Your task to perform on an android device: Is it going to rain tomorrow? Image 0: 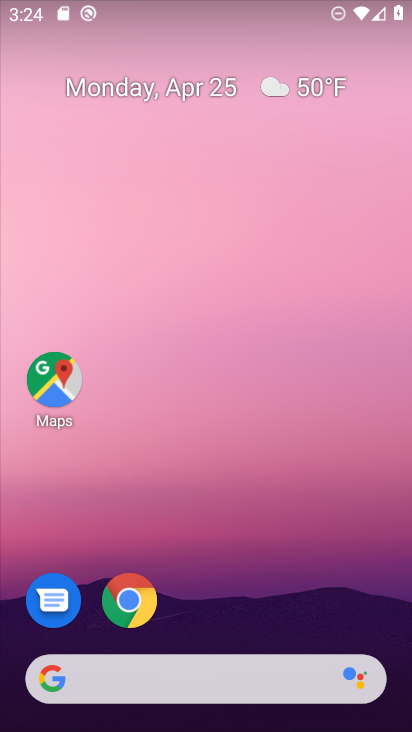
Step 0: click (137, 692)
Your task to perform on an android device: Is it going to rain tomorrow? Image 1: 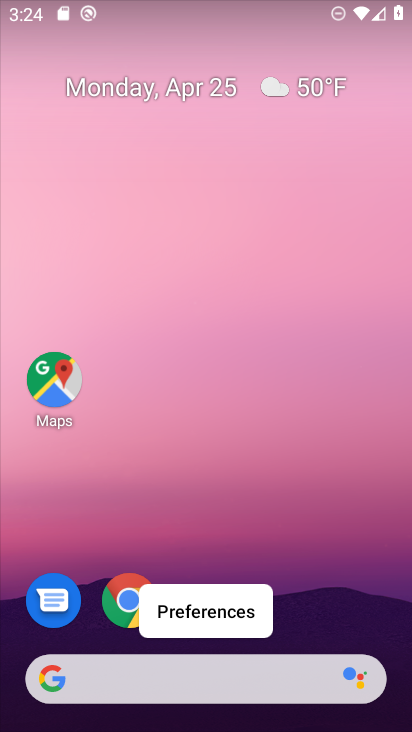
Step 1: click (240, 698)
Your task to perform on an android device: Is it going to rain tomorrow? Image 2: 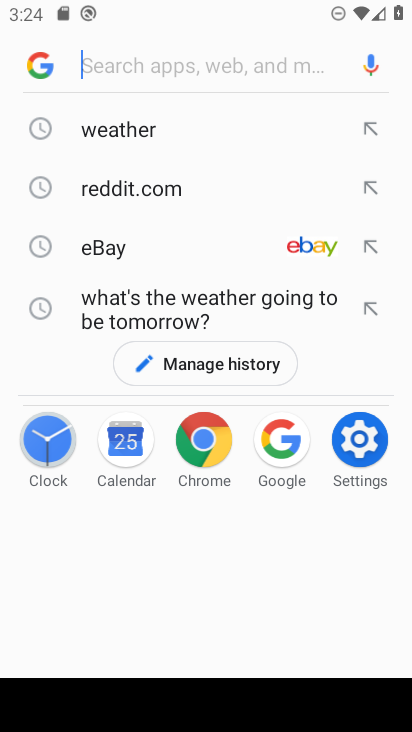
Step 2: click (120, 139)
Your task to perform on an android device: Is it going to rain tomorrow? Image 3: 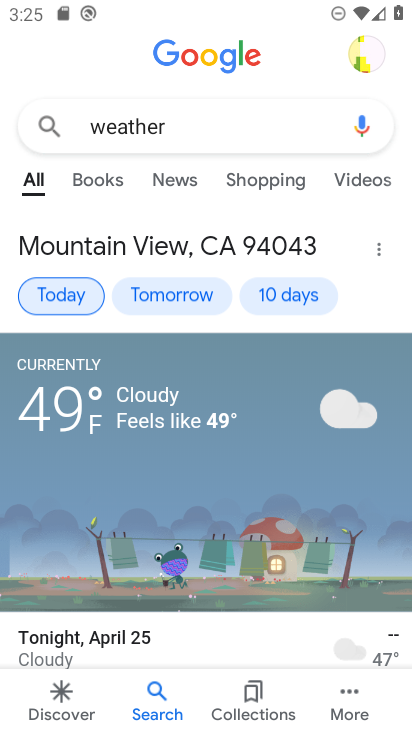
Step 3: click (205, 284)
Your task to perform on an android device: Is it going to rain tomorrow? Image 4: 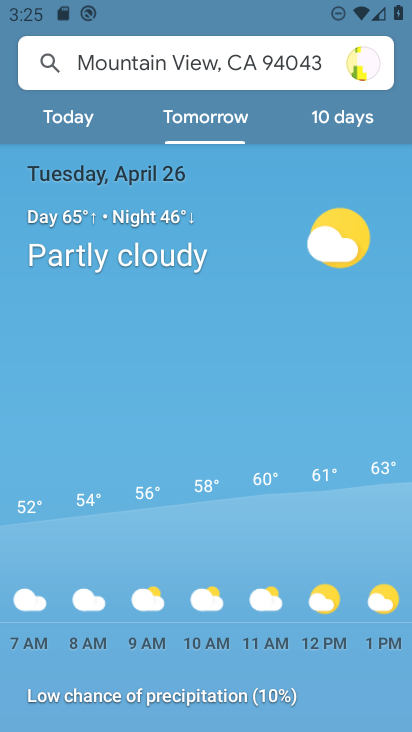
Step 4: task complete